Your task to perform on an android device: Open the web browser Image 0: 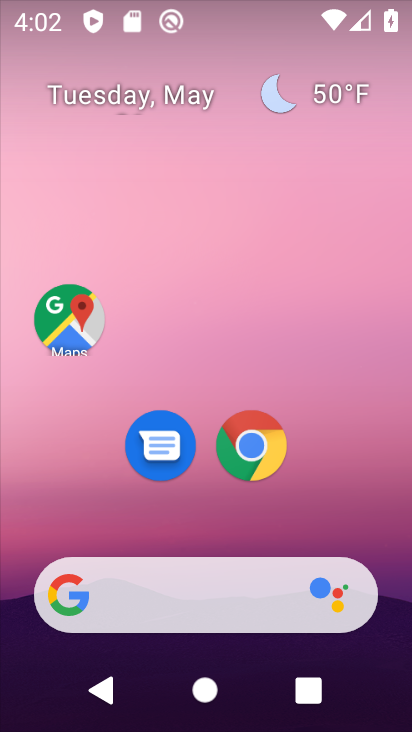
Step 0: drag from (362, 521) to (360, 162)
Your task to perform on an android device: Open the web browser Image 1: 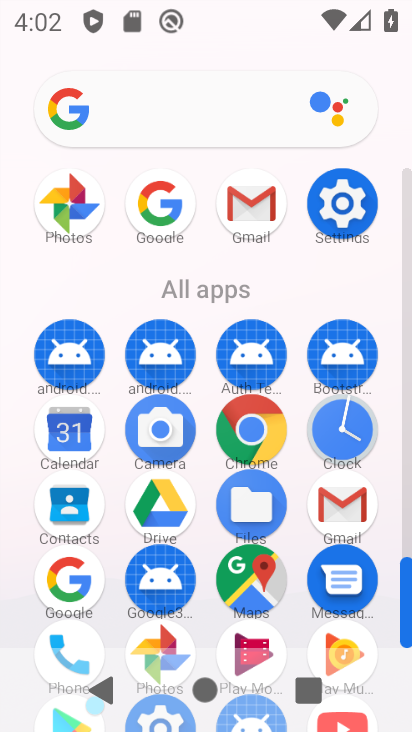
Step 1: click (268, 445)
Your task to perform on an android device: Open the web browser Image 2: 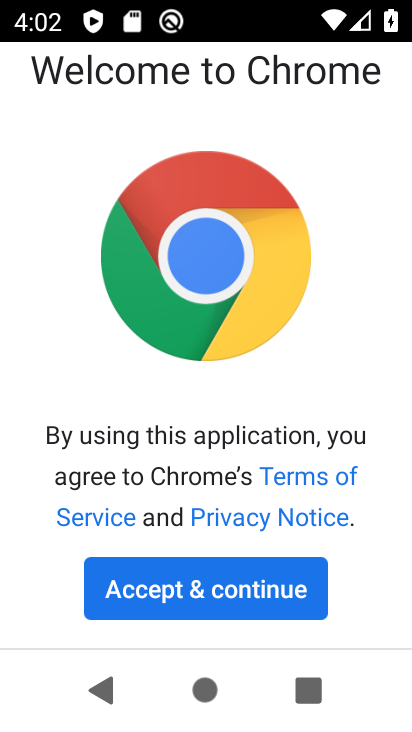
Step 2: click (264, 584)
Your task to perform on an android device: Open the web browser Image 3: 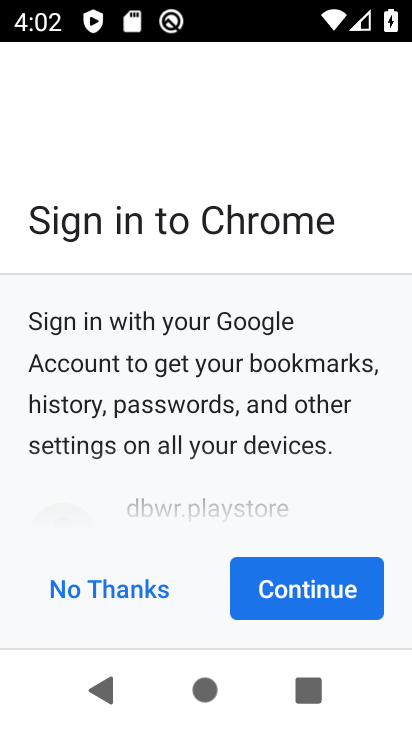
Step 3: click (264, 584)
Your task to perform on an android device: Open the web browser Image 4: 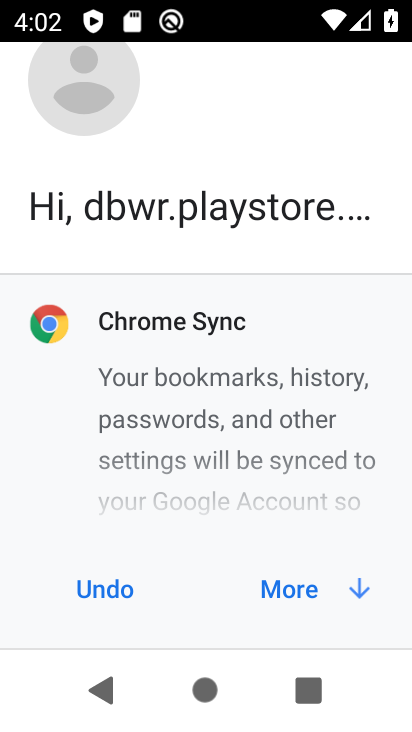
Step 4: click (264, 584)
Your task to perform on an android device: Open the web browser Image 5: 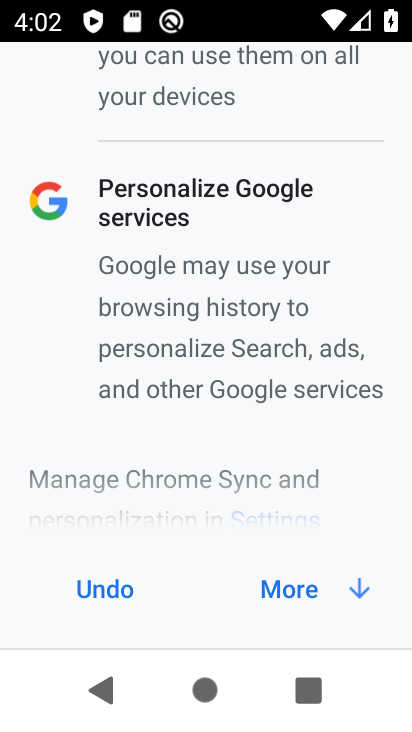
Step 5: click (299, 603)
Your task to perform on an android device: Open the web browser Image 6: 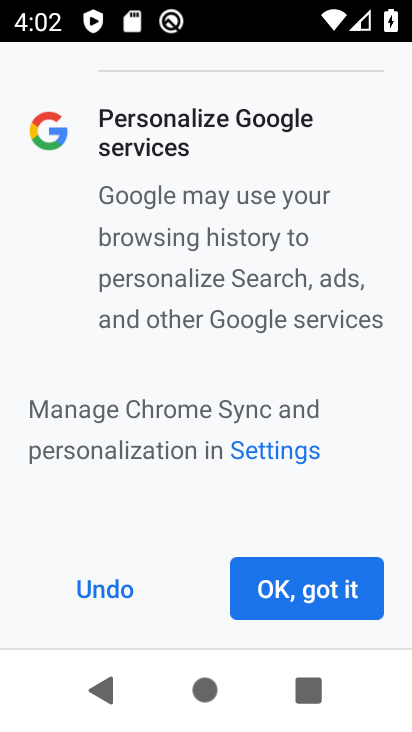
Step 6: click (353, 604)
Your task to perform on an android device: Open the web browser Image 7: 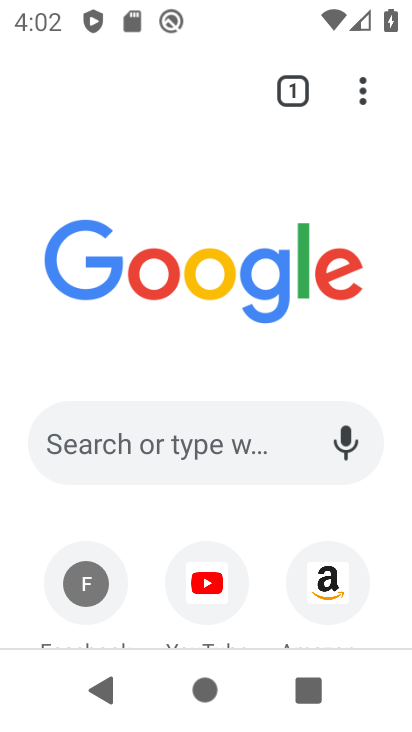
Step 7: task complete